Your task to perform on an android device: Open privacy settings Image 0: 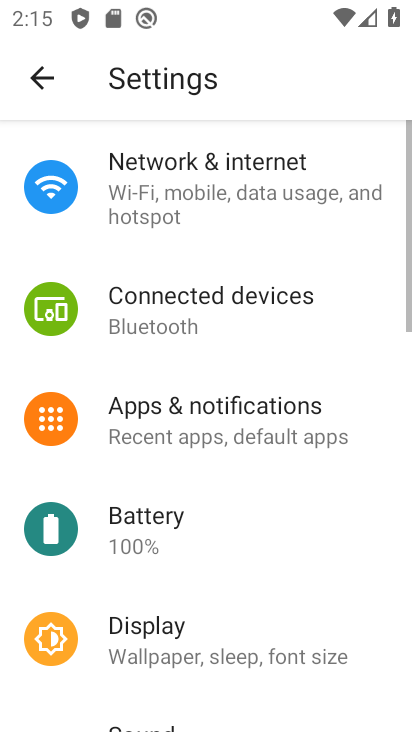
Step 0: drag from (154, 620) to (286, 38)
Your task to perform on an android device: Open privacy settings Image 1: 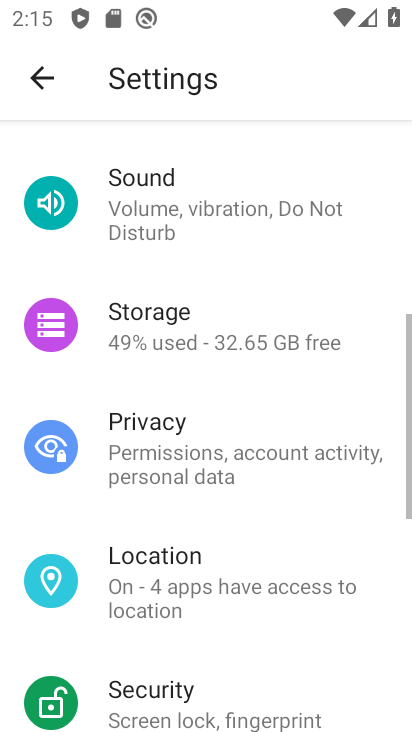
Step 1: click (175, 448)
Your task to perform on an android device: Open privacy settings Image 2: 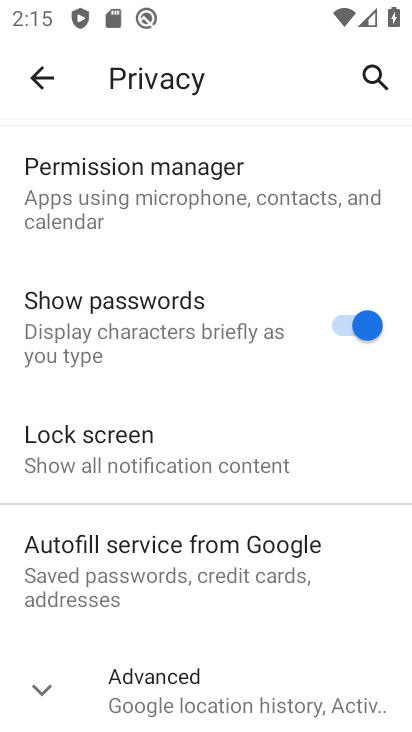
Step 2: task complete